Your task to perform on an android device: set the stopwatch Image 0: 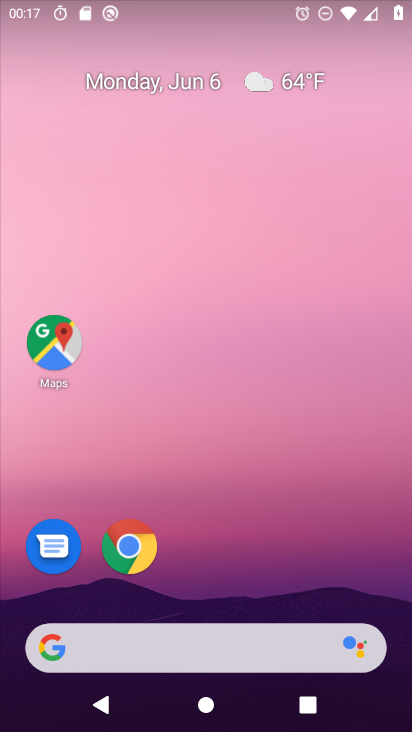
Step 0: drag from (201, 571) to (270, 80)
Your task to perform on an android device: set the stopwatch Image 1: 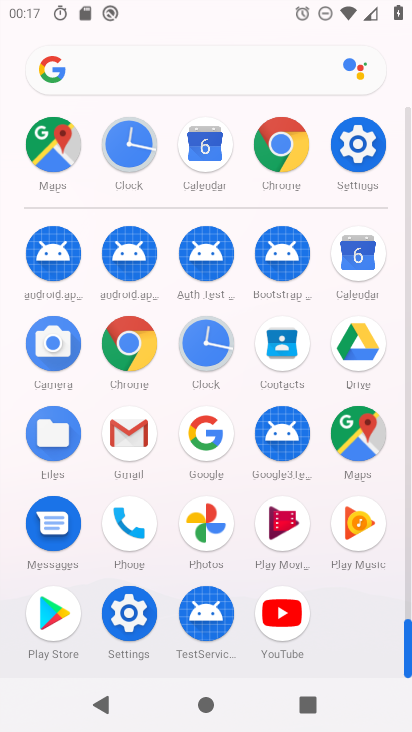
Step 1: click (209, 345)
Your task to perform on an android device: set the stopwatch Image 2: 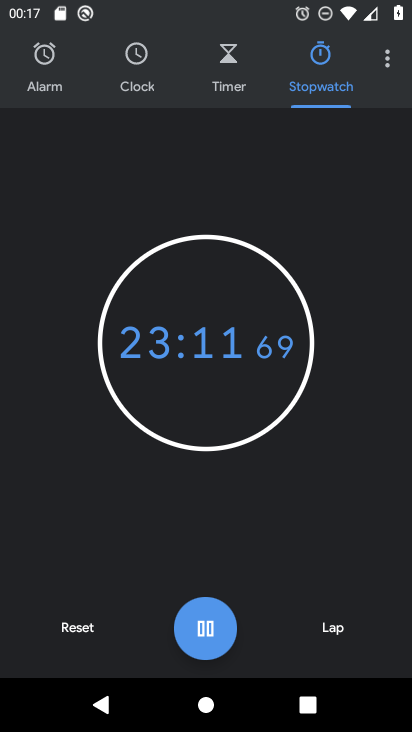
Step 2: click (79, 624)
Your task to perform on an android device: set the stopwatch Image 3: 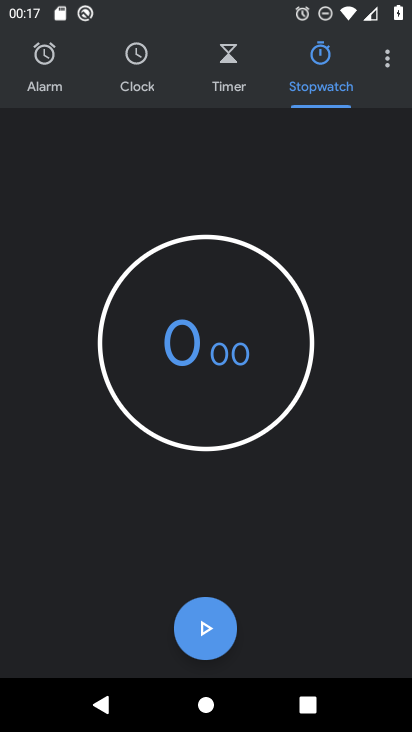
Step 3: click (200, 624)
Your task to perform on an android device: set the stopwatch Image 4: 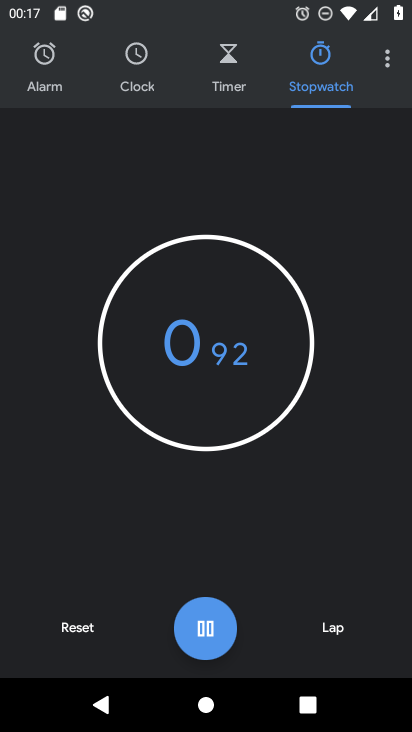
Step 4: task complete